Your task to perform on an android device: Toggle the flashlight Image 0: 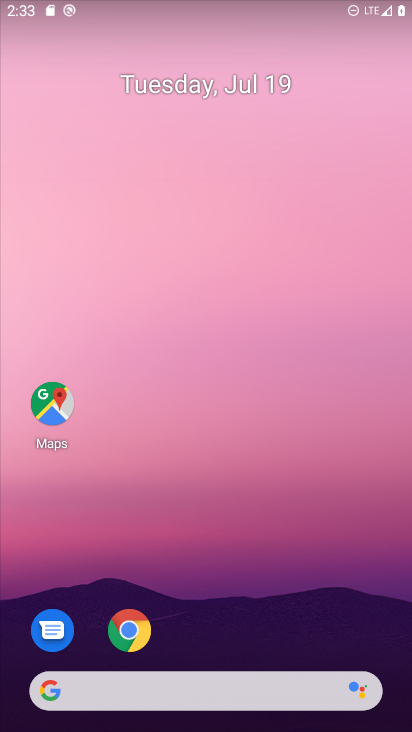
Step 0: drag from (208, 17) to (207, 296)
Your task to perform on an android device: Toggle the flashlight Image 1: 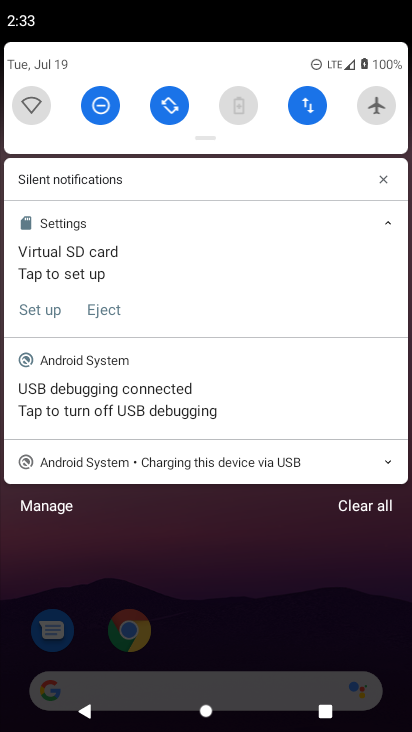
Step 1: drag from (205, 136) to (206, 330)
Your task to perform on an android device: Toggle the flashlight Image 2: 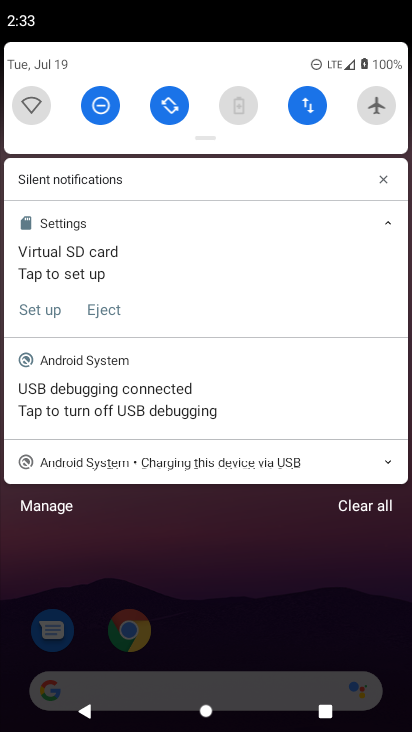
Step 2: drag from (206, 146) to (225, 402)
Your task to perform on an android device: Toggle the flashlight Image 3: 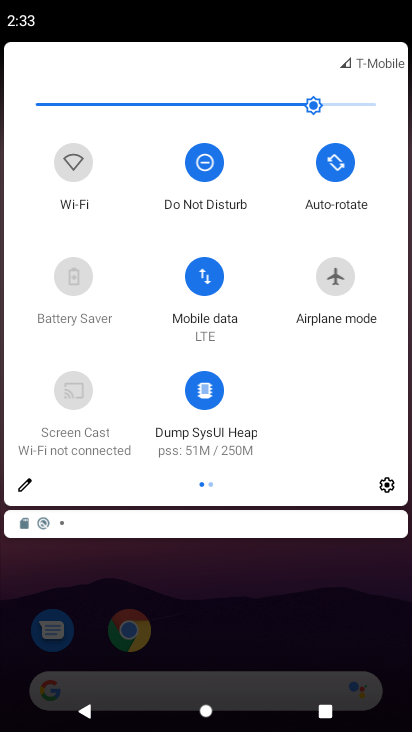
Step 3: click (23, 485)
Your task to perform on an android device: Toggle the flashlight Image 4: 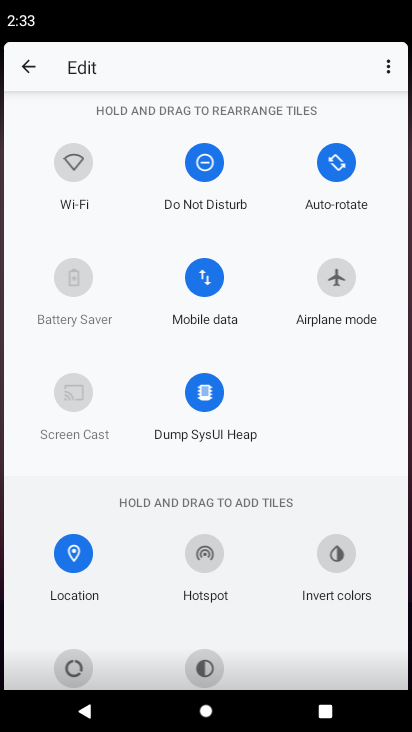
Step 4: task complete